Your task to perform on an android device: Turn on the flashlight Image 0: 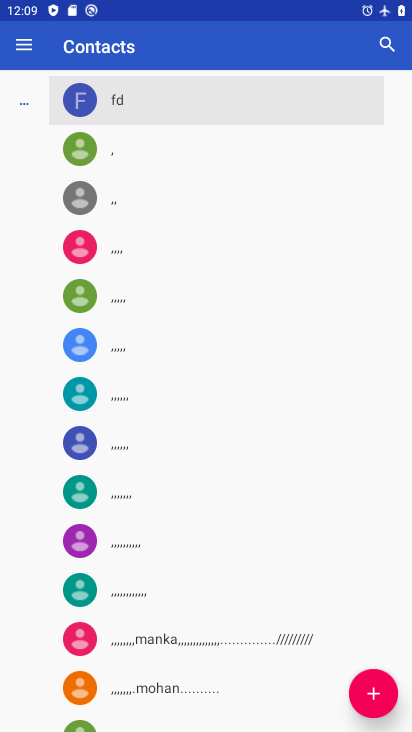
Step 0: press home button
Your task to perform on an android device: Turn on the flashlight Image 1: 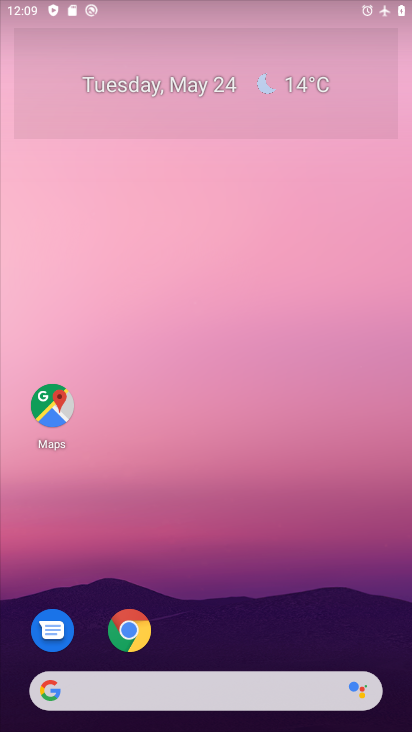
Step 1: drag from (351, 625) to (334, 88)
Your task to perform on an android device: Turn on the flashlight Image 2: 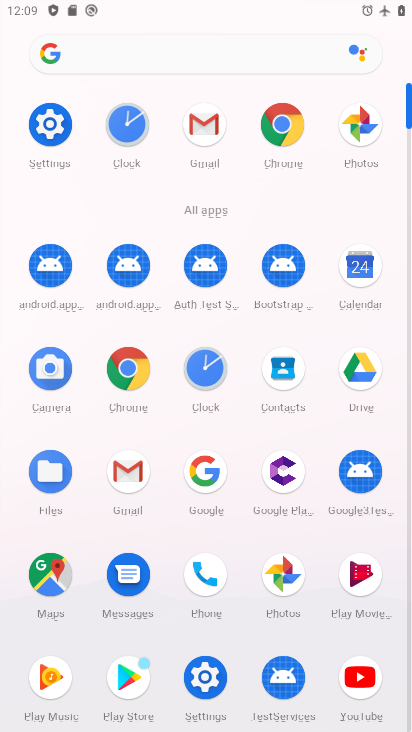
Step 2: click (54, 134)
Your task to perform on an android device: Turn on the flashlight Image 3: 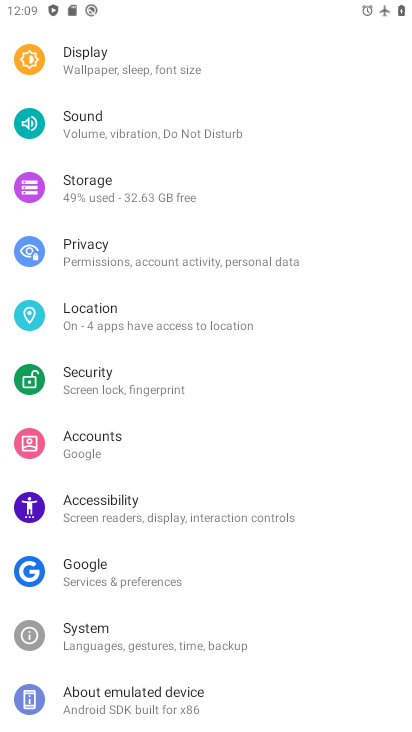
Step 3: drag from (276, 130) to (289, 569)
Your task to perform on an android device: Turn on the flashlight Image 4: 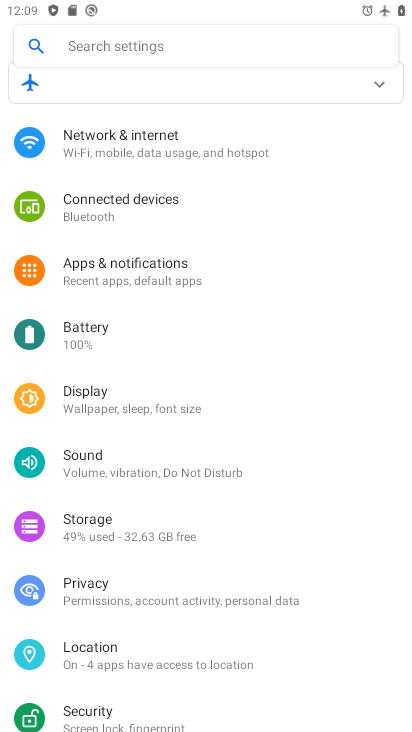
Step 4: click (176, 55)
Your task to perform on an android device: Turn on the flashlight Image 5: 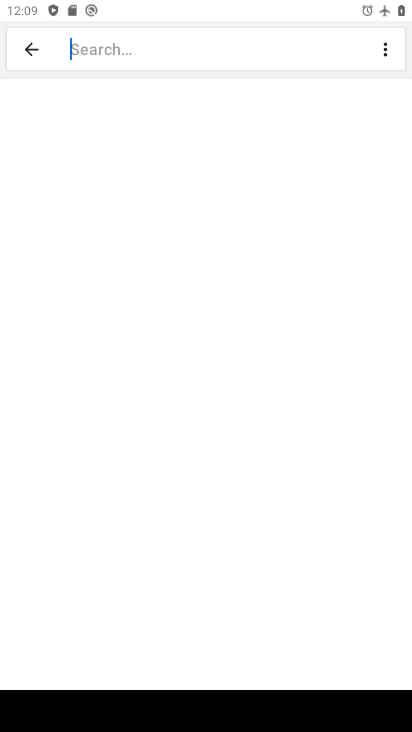
Step 5: type ""
Your task to perform on an android device: Turn on the flashlight Image 6: 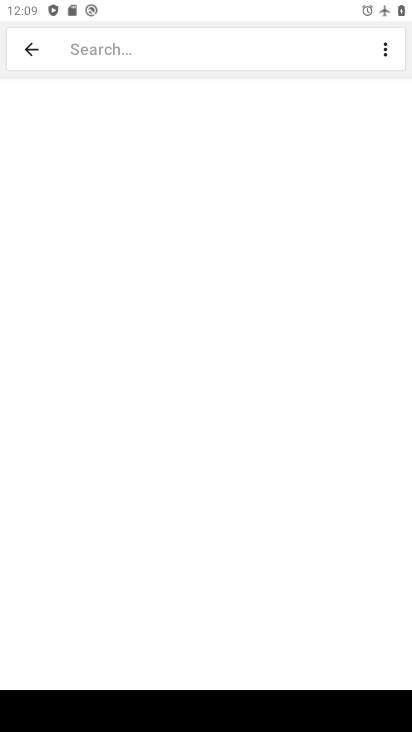
Step 6: type "flashlight"
Your task to perform on an android device: Turn on the flashlight Image 7: 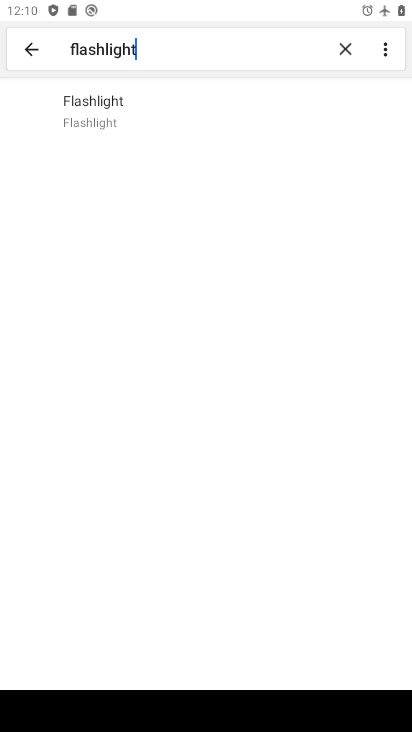
Step 7: task complete